Your task to perform on an android device: snooze an email in the gmail app Image 0: 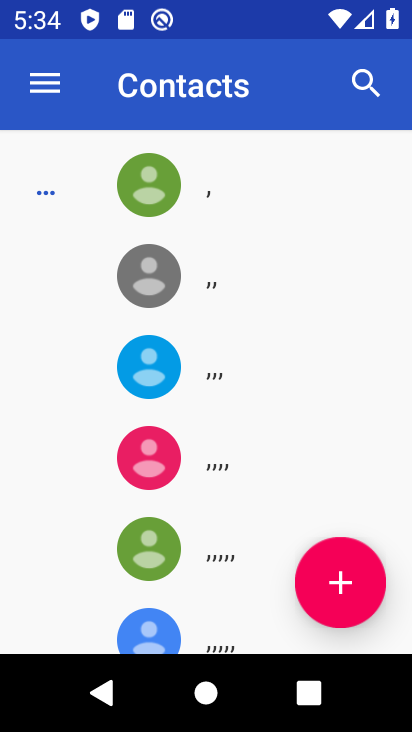
Step 0: press back button
Your task to perform on an android device: snooze an email in the gmail app Image 1: 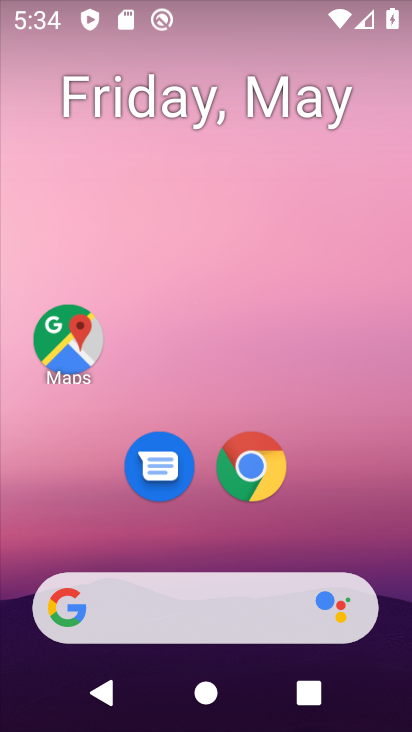
Step 1: drag from (382, 534) to (266, 36)
Your task to perform on an android device: snooze an email in the gmail app Image 2: 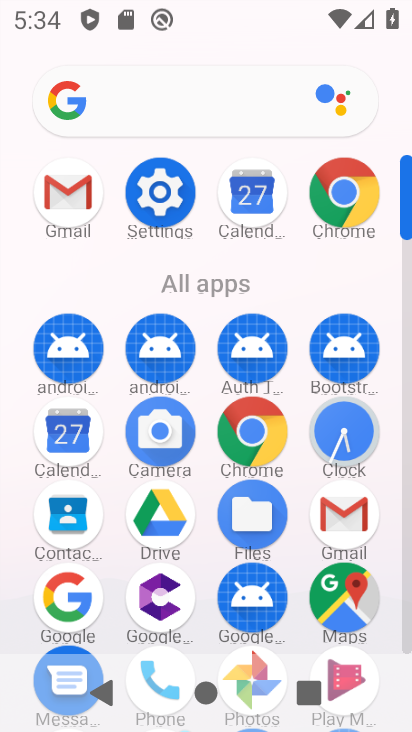
Step 2: drag from (9, 523) to (27, 223)
Your task to perform on an android device: snooze an email in the gmail app Image 3: 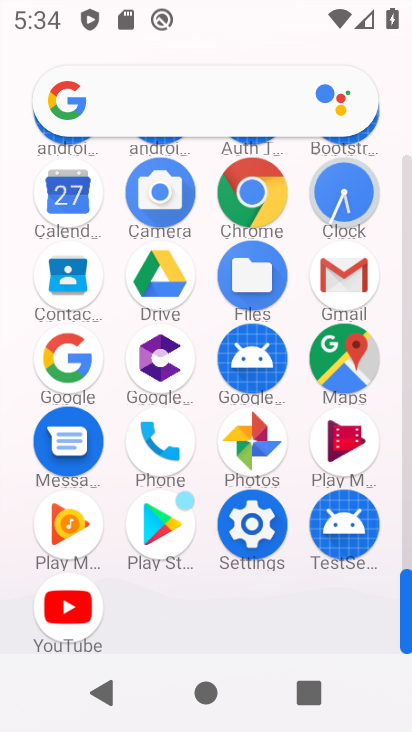
Step 3: drag from (33, 237) to (2, 485)
Your task to perform on an android device: snooze an email in the gmail app Image 4: 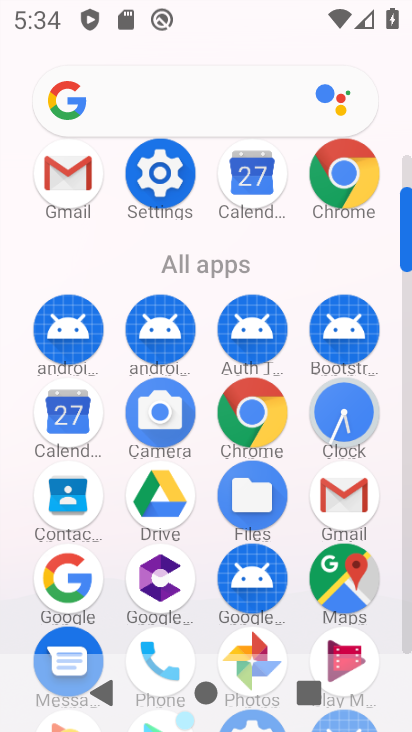
Step 4: click (339, 484)
Your task to perform on an android device: snooze an email in the gmail app Image 5: 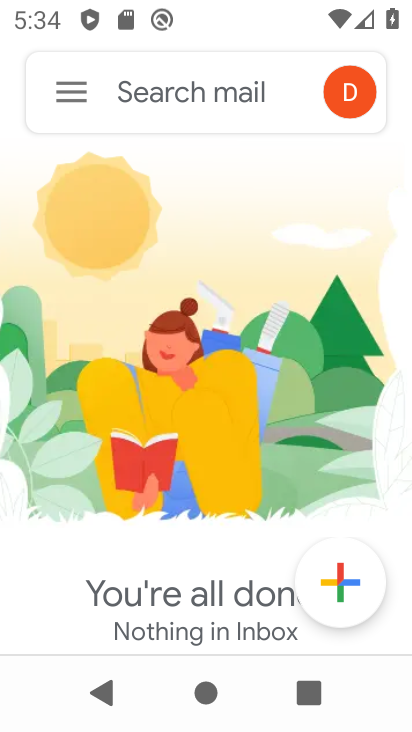
Step 5: click (74, 82)
Your task to perform on an android device: snooze an email in the gmail app Image 6: 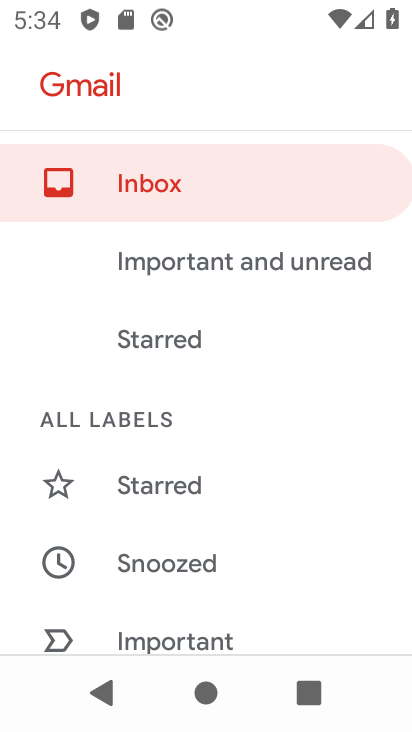
Step 6: click (184, 554)
Your task to perform on an android device: snooze an email in the gmail app Image 7: 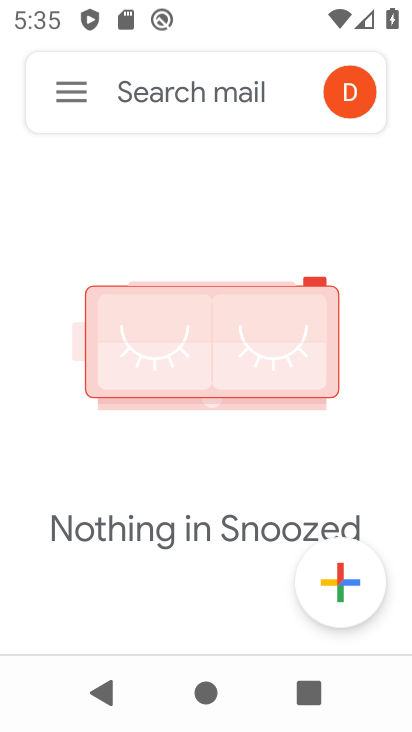
Step 7: task complete